Your task to perform on an android device: Open notification settings Image 0: 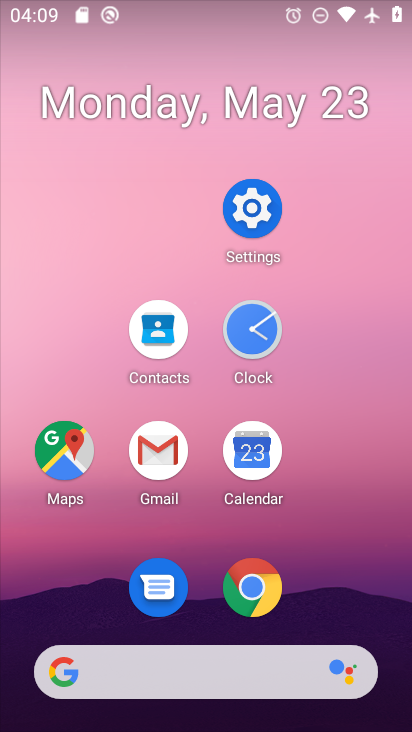
Step 0: click (242, 242)
Your task to perform on an android device: Open notification settings Image 1: 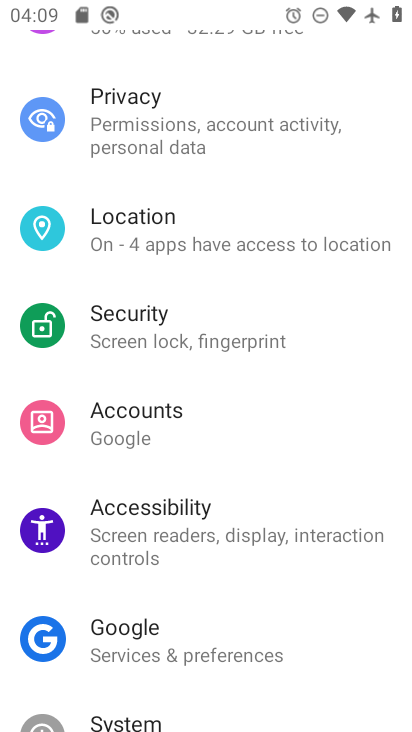
Step 1: drag from (209, 229) to (174, 568)
Your task to perform on an android device: Open notification settings Image 2: 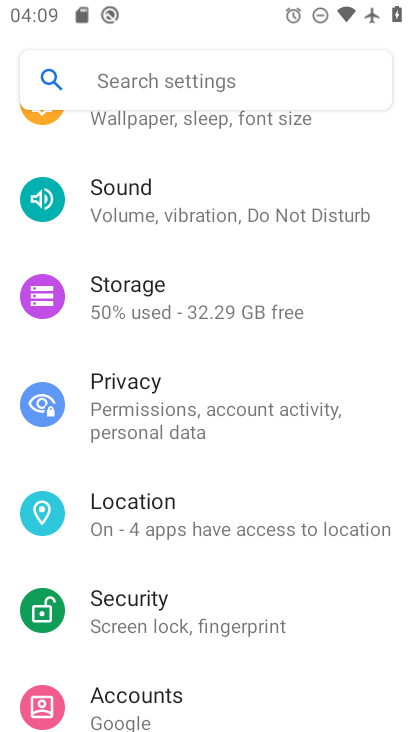
Step 2: drag from (218, 275) to (182, 723)
Your task to perform on an android device: Open notification settings Image 3: 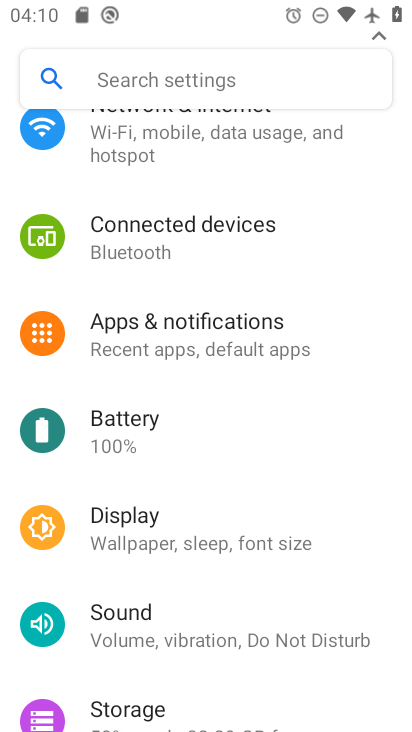
Step 3: click (244, 341)
Your task to perform on an android device: Open notification settings Image 4: 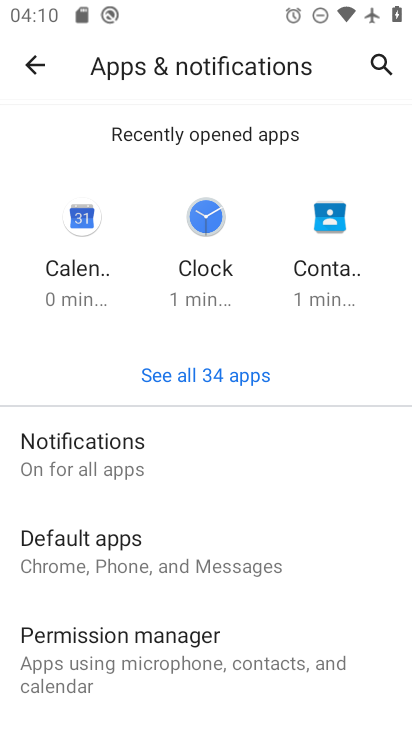
Step 4: click (203, 469)
Your task to perform on an android device: Open notification settings Image 5: 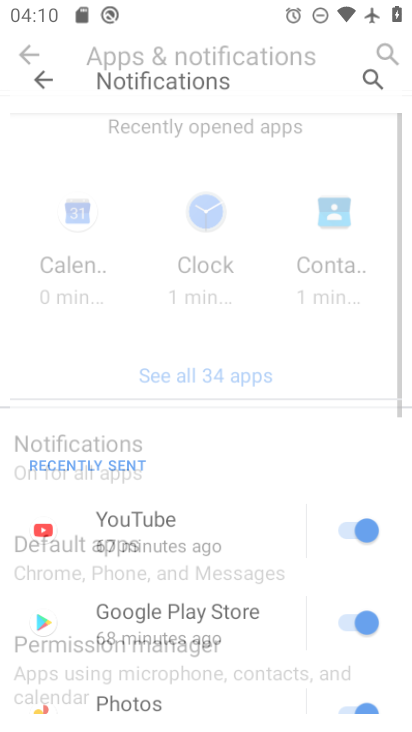
Step 5: task complete